Your task to perform on an android device: View the shopping cart on costco.com. Image 0: 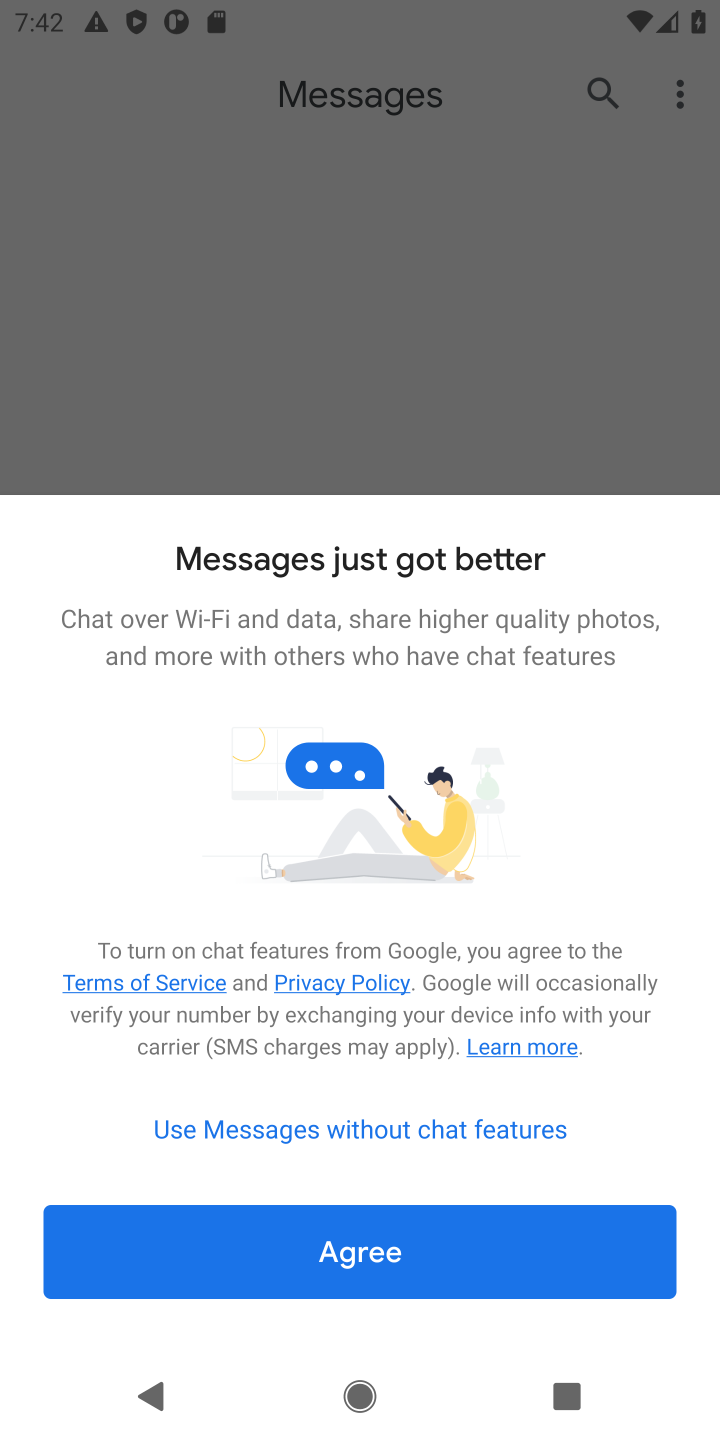
Step 0: press home button
Your task to perform on an android device: View the shopping cart on costco.com. Image 1: 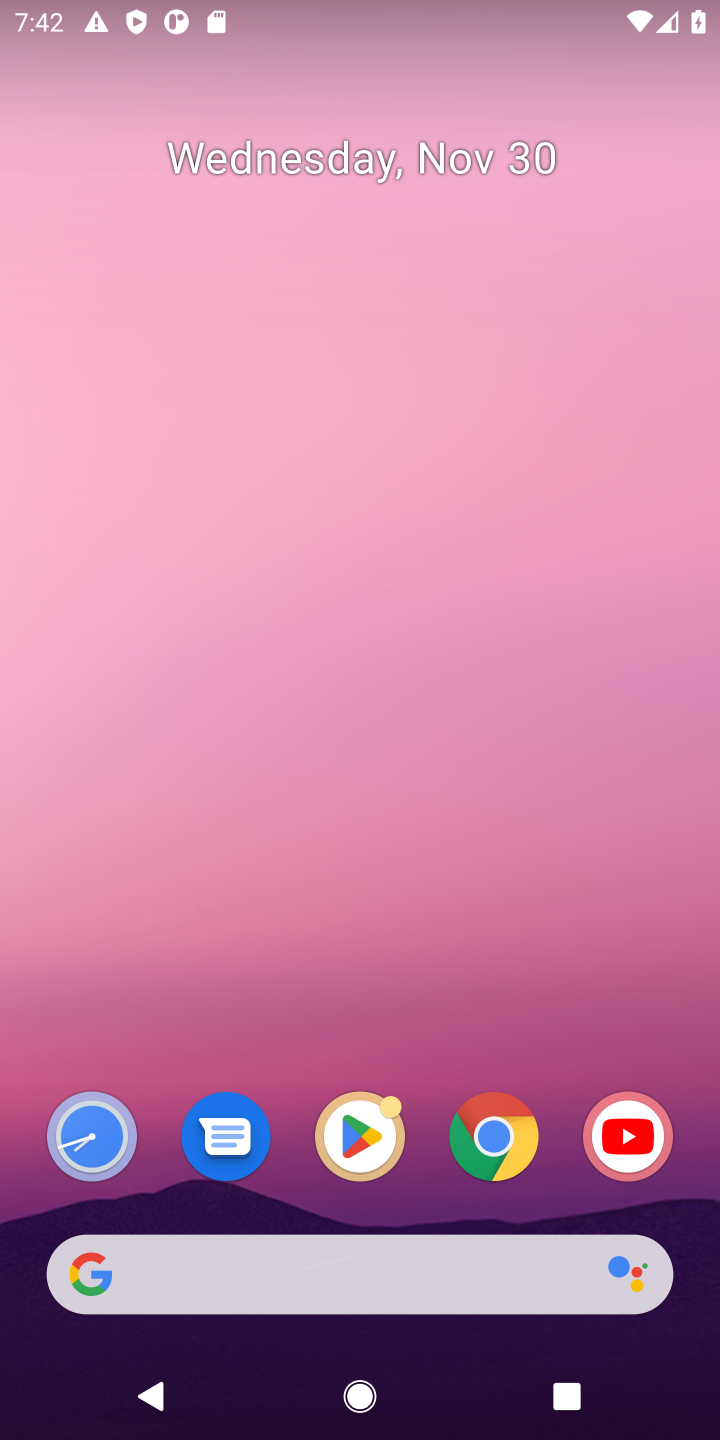
Step 1: click (507, 1151)
Your task to perform on an android device: View the shopping cart on costco.com. Image 2: 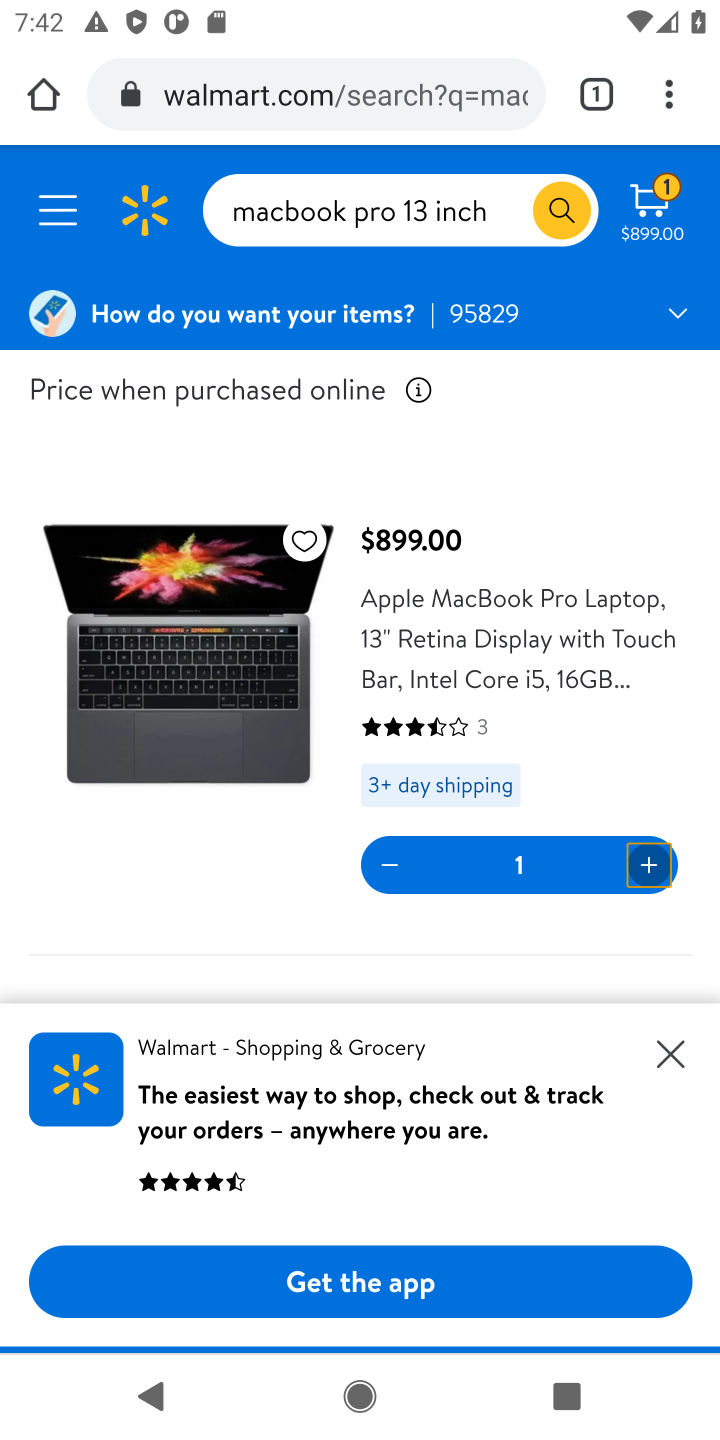
Step 2: click (325, 91)
Your task to perform on an android device: View the shopping cart on costco.com. Image 3: 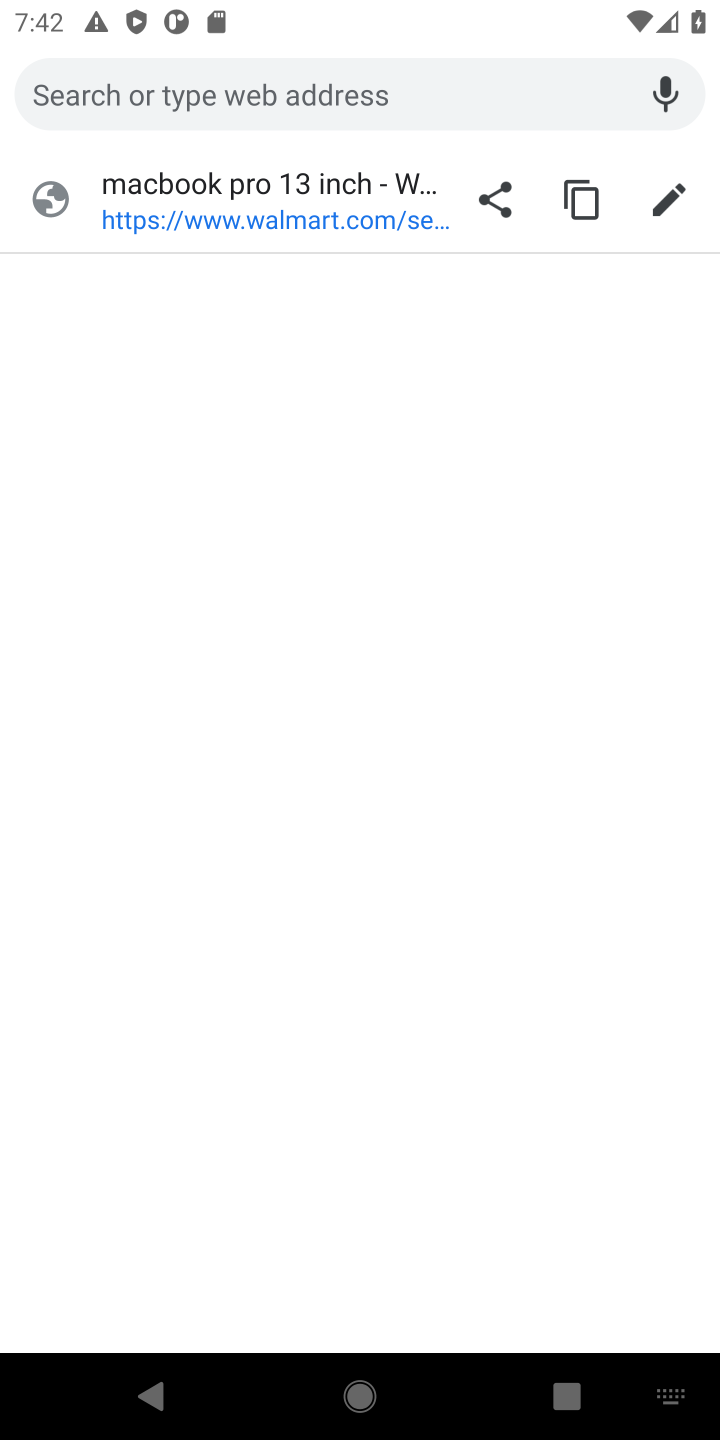
Step 3: type "costco.com"
Your task to perform on an android device: View the shopping cart on costco.com. Image 4: 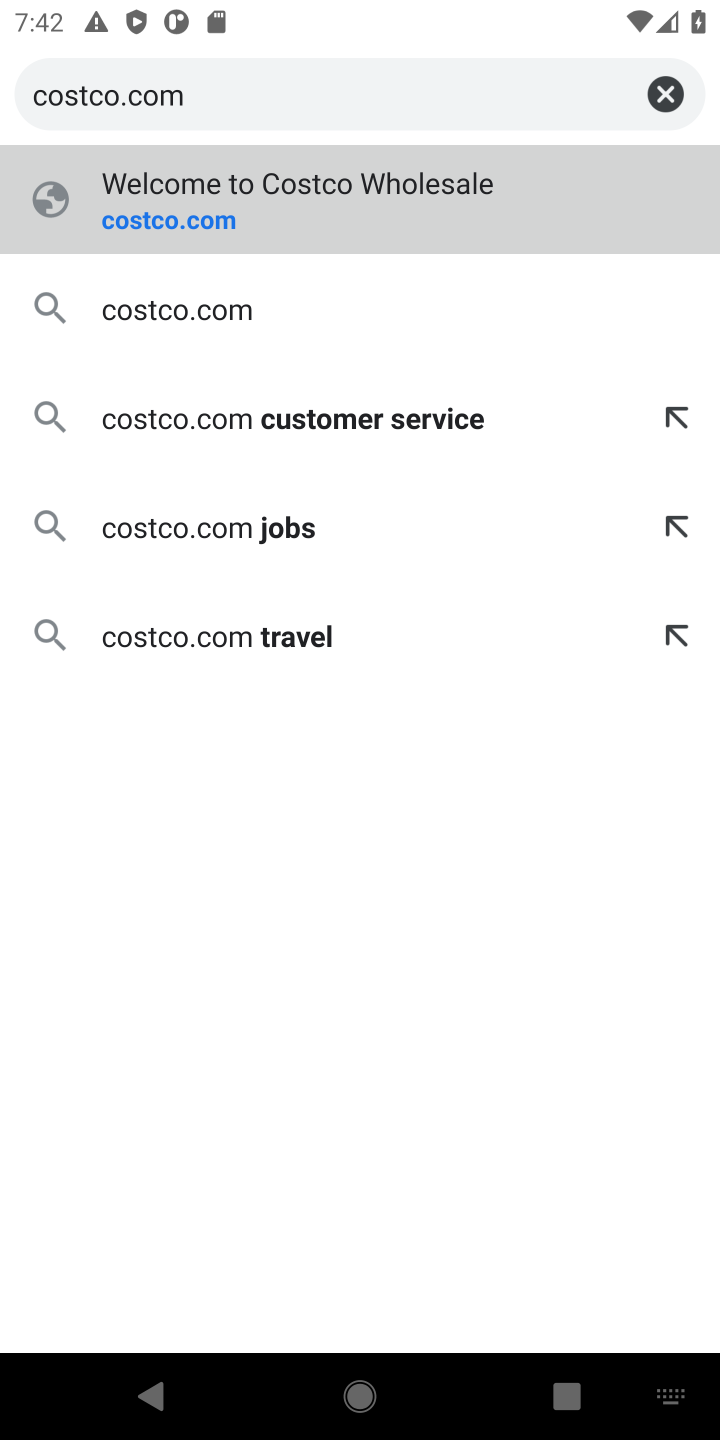
Step 4: click (191, 239)
Your task to perform on an android device: View the shopping cart on costco.com. Image 5: 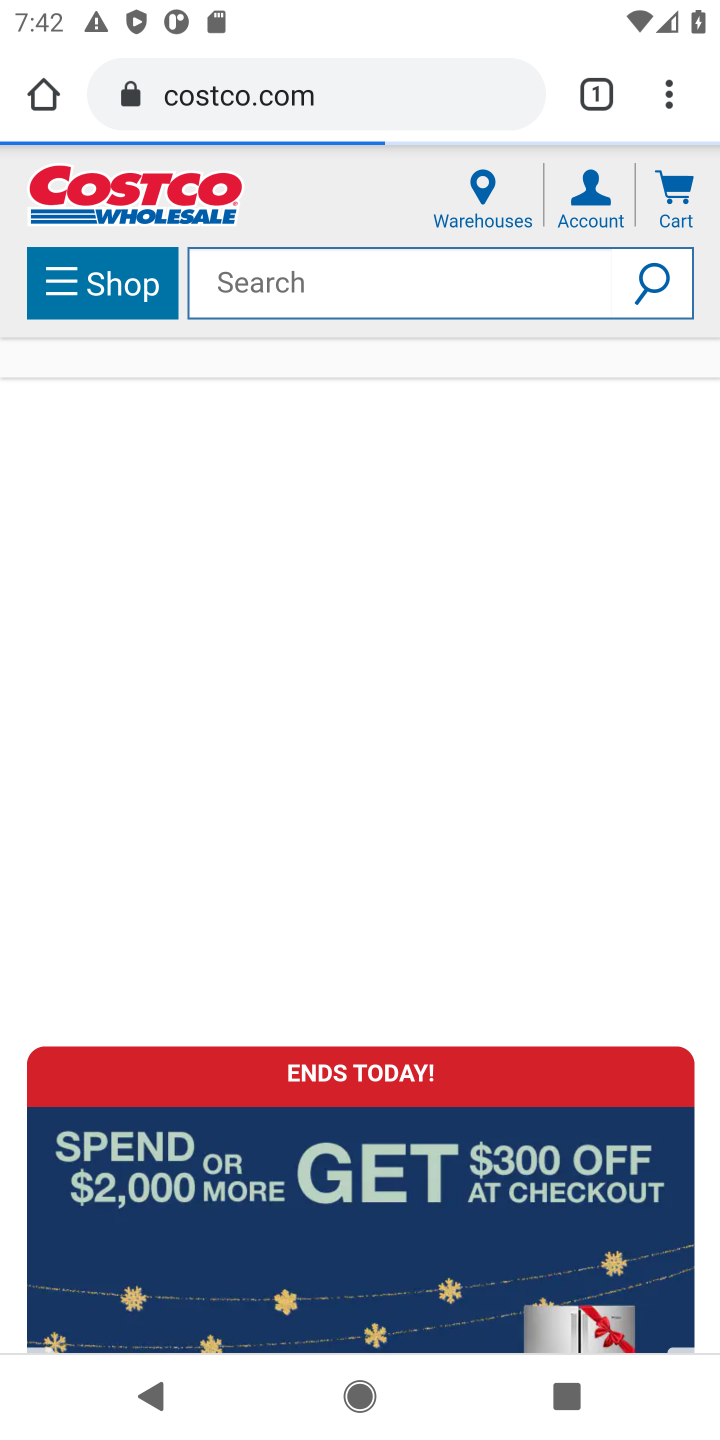
Step 5: click (672, 198)
Your task to perform on an android device: View the shopping cart on costco.com. Image 6: 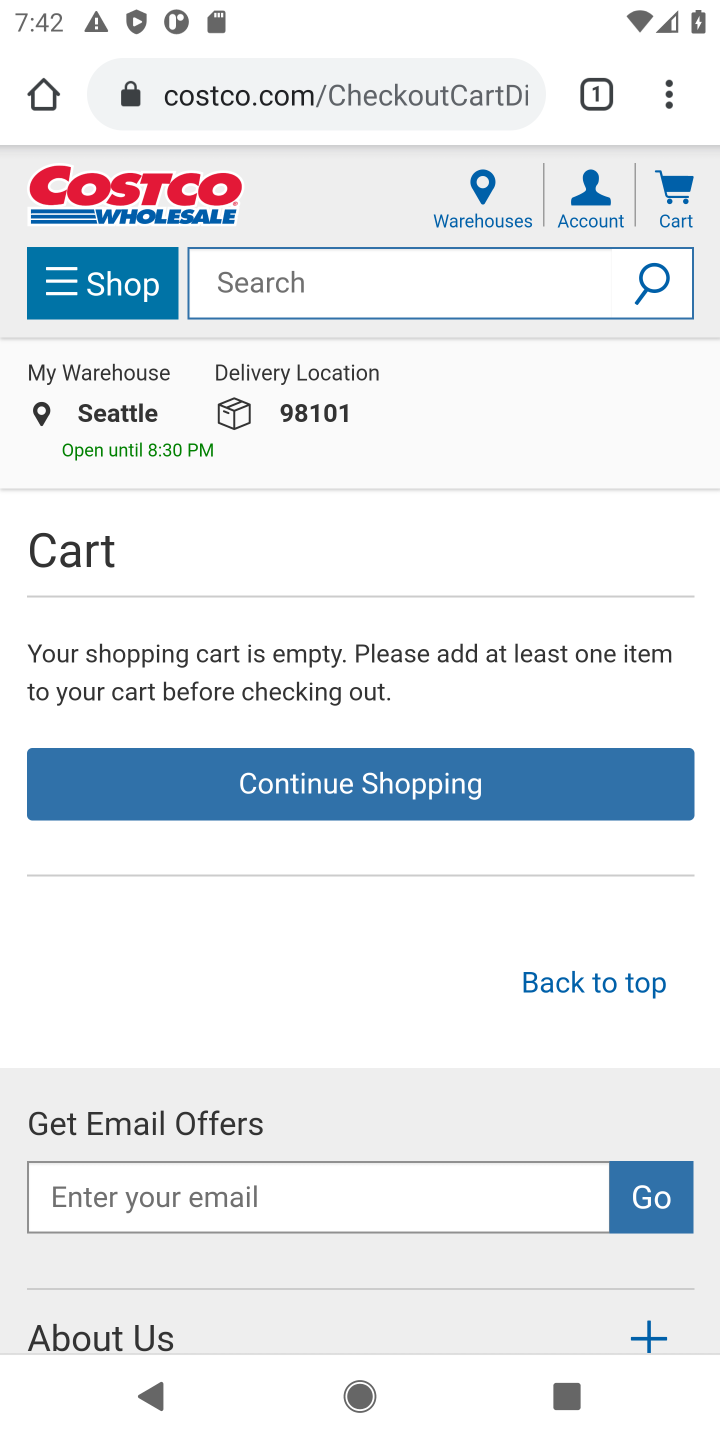
Step 6: task complete